Your task to perform on an android device: Play the last video I watched on Youtube Image 0: 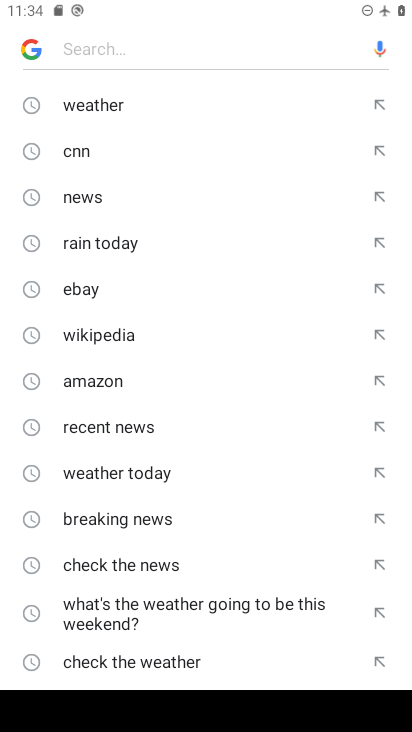
Step 0: press home button
Your task to perform on an android device: Play the last video I watched on Youtube Image 1: 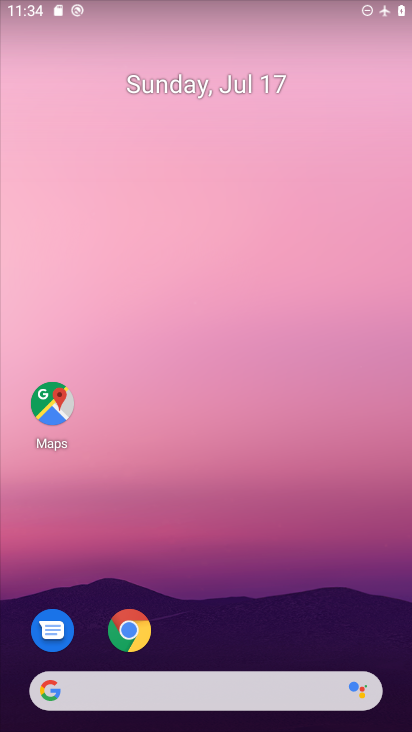
Step 1: drag from (192, 631) to (152, 5)
Your task to perform on an android device: Play the last video I watched on Youtube Image 2: 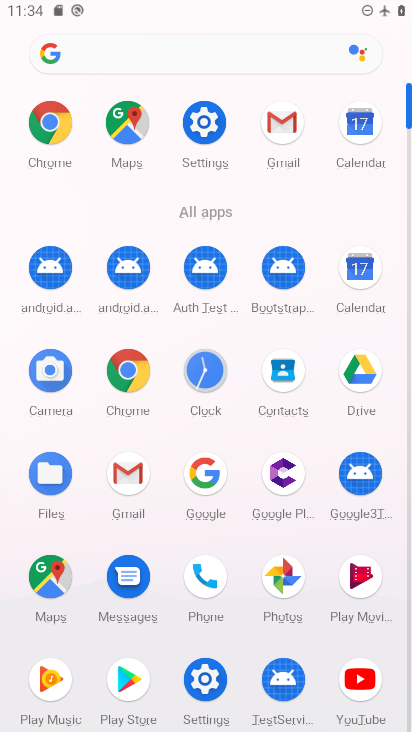
Step 2: click (360, 672)
Your task to perform on an android device: Play the last video I watched on Youtube Image 3: 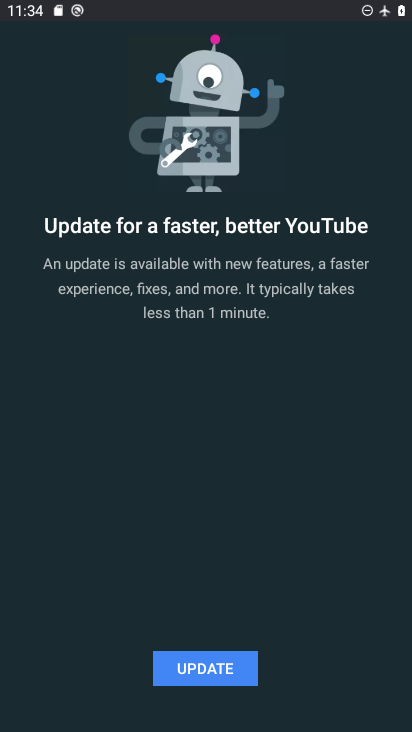
Step 3: click (181, 676)
Your task to perform on an android device: Play the last video I watched on Youtube Image 4: 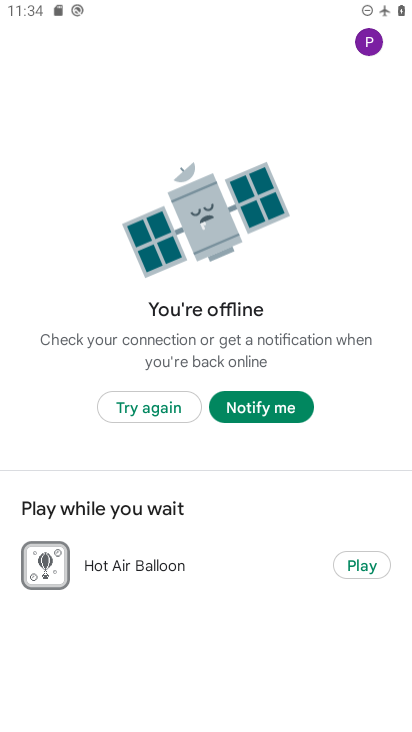
Step 4: press back button
Your task to perform on an android device: Play the last video I watched on Youtube Image 5: 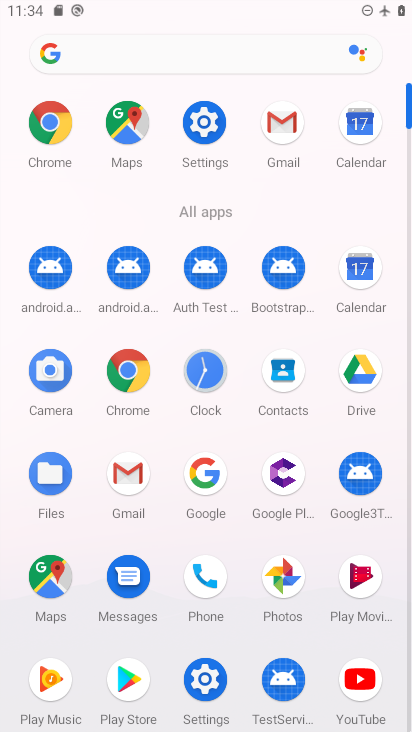
Step 5: click (207, 116)
Your task to perform on an android device: Play the last video I watched on Youtube Image 6: 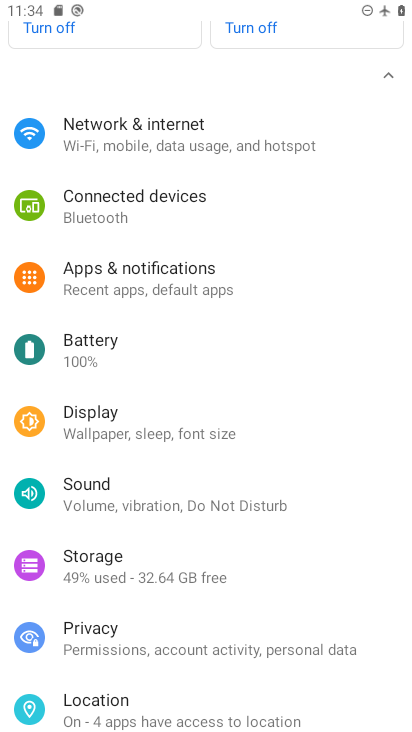
Step 6: click (391, 75)
Your task to perform on an android device: Play the last video I watched on Youtube Image 7: 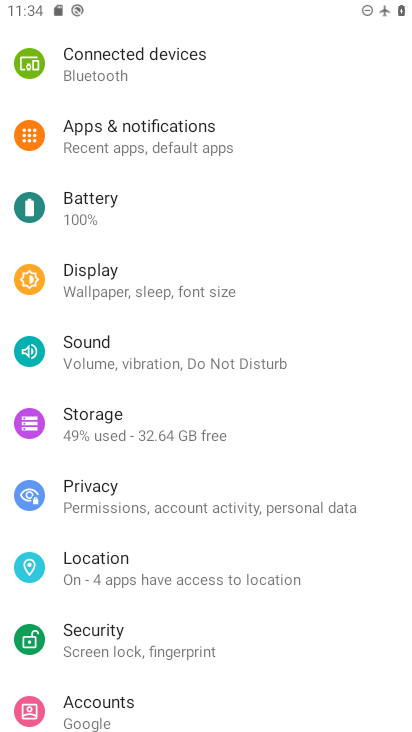
Step 7: drag from (305, 150) to (330, 423)
Your task to perform on an android device: Play the last video I watched on Youtube Image 8: 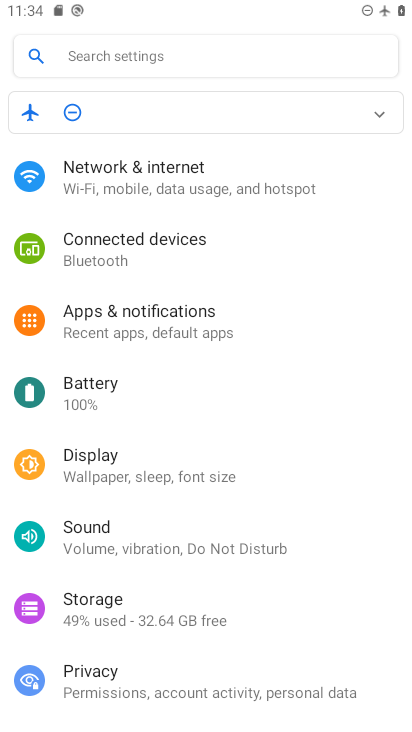
Step 8: drag from (102, 148) to (131, 424)
Your task to perform on an android device: Play the last video I watched on Youtube Image 9: 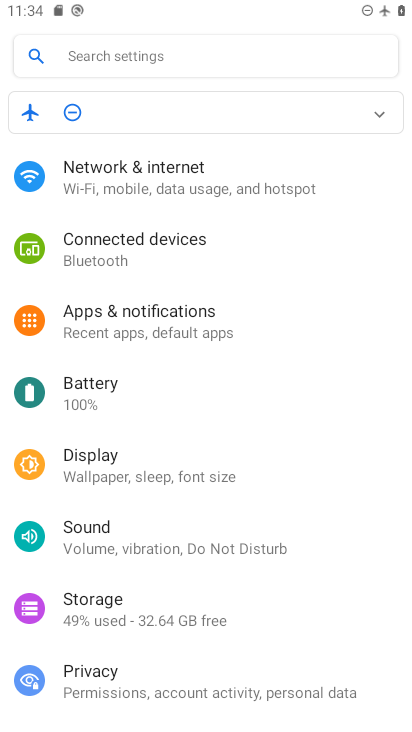
Step 9: click (369, 112)
Your task to perform on an android device: Play the last video I watched on Youtube Image 10: 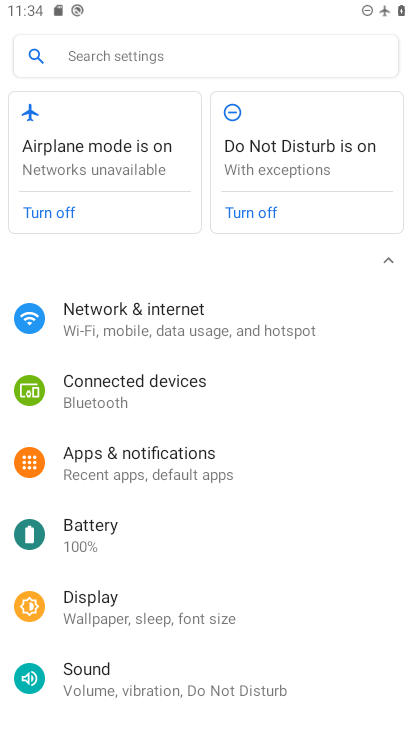
Step 10: click (66, 204)
Your task to perform on an android device: Play the last video I watched on Youtube Image 11: 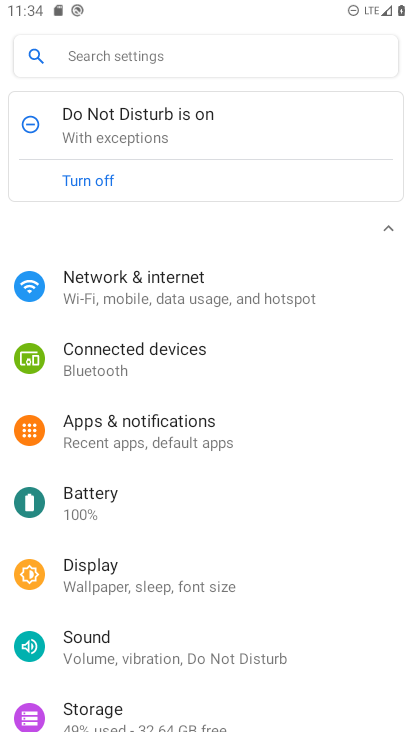
Step 11: press back button
Your task to perform on an android device: Play the last video I watched on Youtube Image 12: 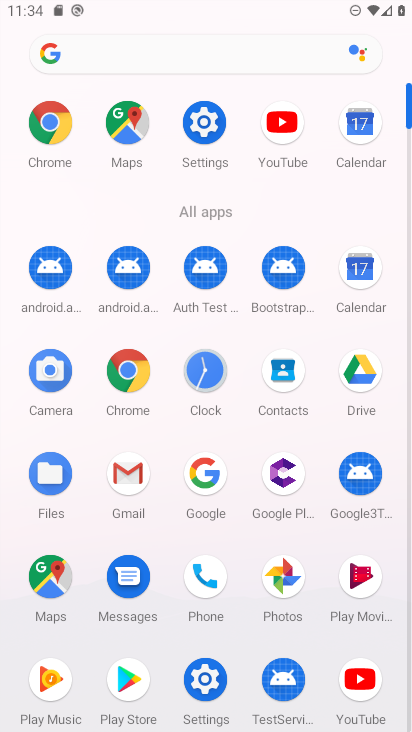
Step 12: click (358, 675)
Your task to perform on an android device: Play the last video I watched on Youtube Image 13: 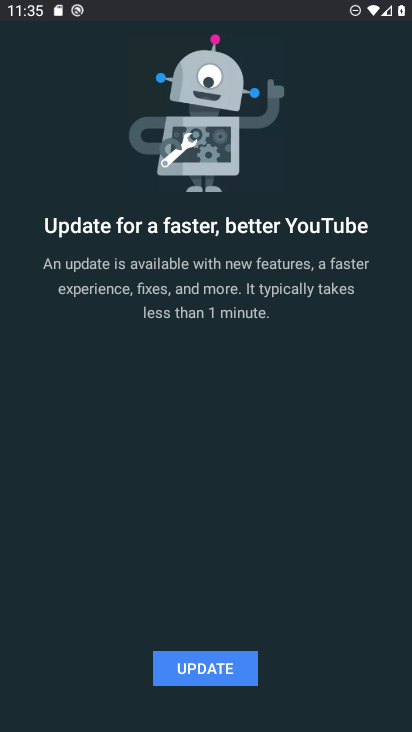
Step 13: click (181, 687)
Your task to perform on an android device: Play the last video I watched on Youtube Image 14: 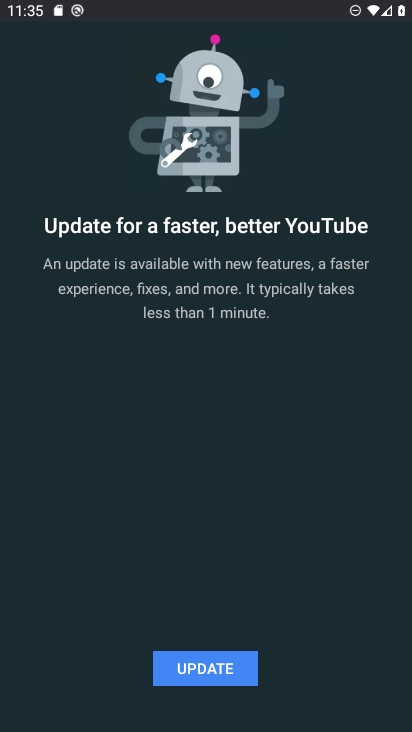
Step 14: click (193, 674)
Your task to perform on an android device: Play the last video I watched on Youtube Image 15: 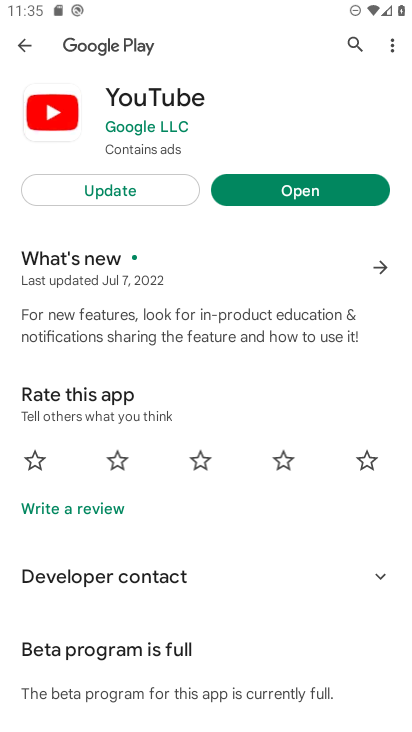
Step 15: click (115, 181)
Your task to perform on an android device: Play the last video I watched on Youtube Image 16: 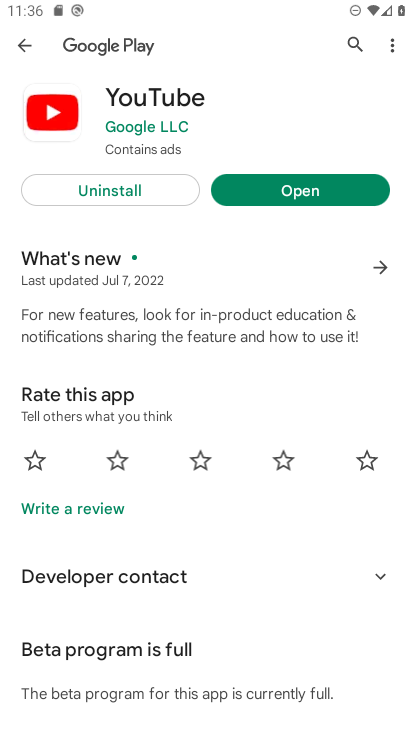
Step 16: click (290, 187)
Your task to perform on an android device: Play the last video I watched on Youtube Image 17: 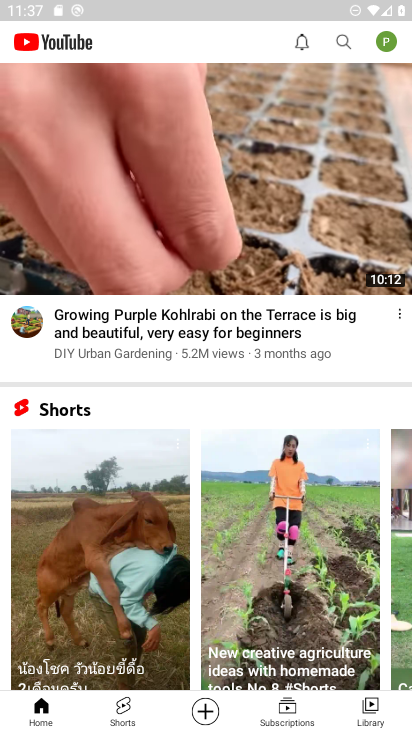
Step 17: click (369, 712)
Your task to perform on an android device: Play the last video I watched on Youtube Image 18: 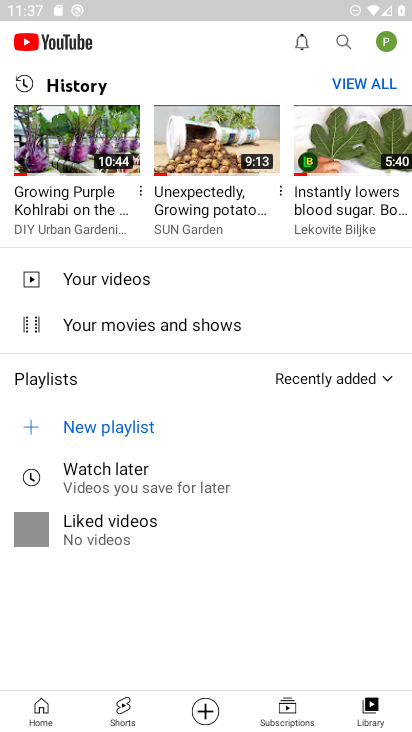
Step 18: task complete